Your task to perform on an android device: Show me popular games on the Play Store Image 0: 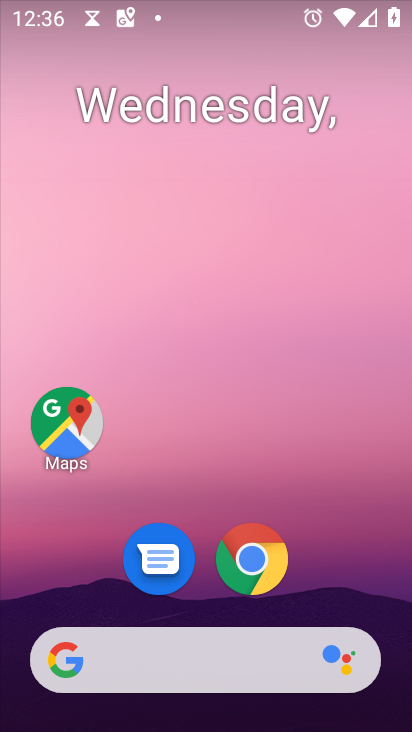
Step 0: drag from (352, 530) to (277, 55)
Your task to perform on an android device: Show me popular games on the Play Store Image 1: 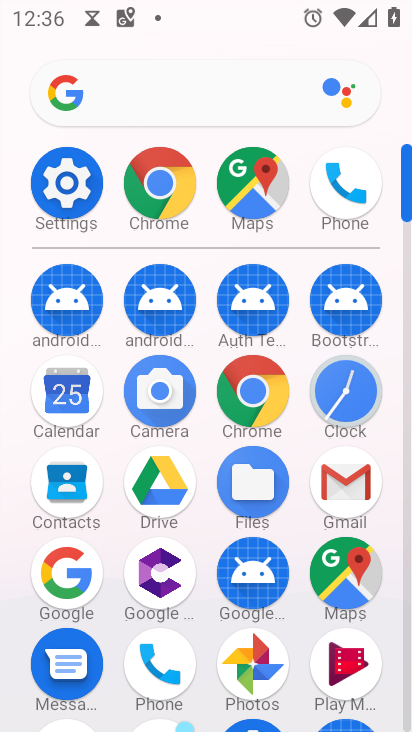
Step 1: drag from (390, 635) to (373, 101)
Your task to perform on an android device: Show me popular games on the Play Store Image 2: 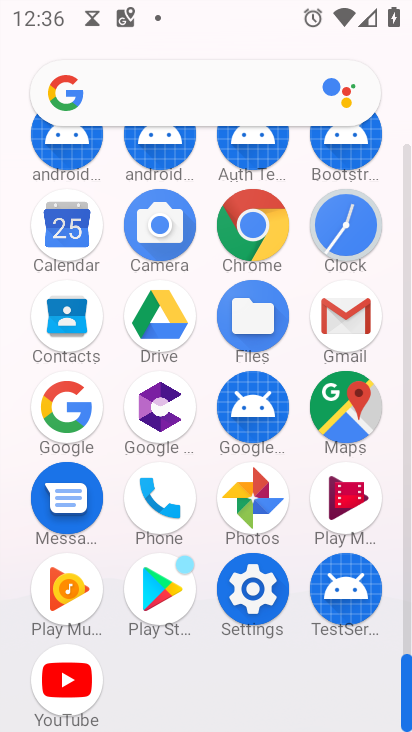
Step 2: click (151, 605)
Your task to perform on an android device: Show me popular games on the Play Store Image 3: 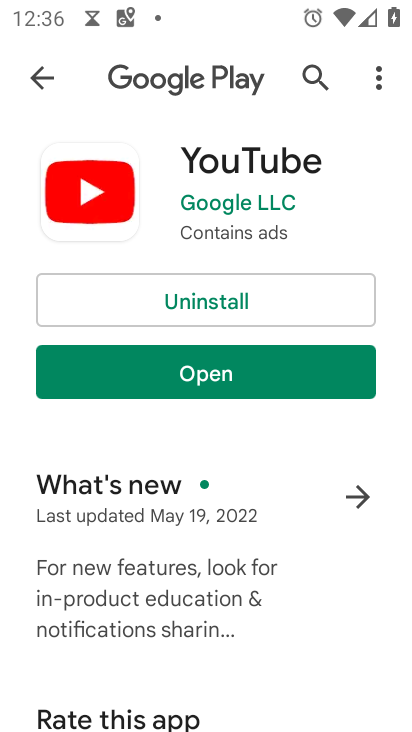
Step 3: click (238, 369)
Your task to perform on an android device: Show me popular games on the Play Store Image 4: 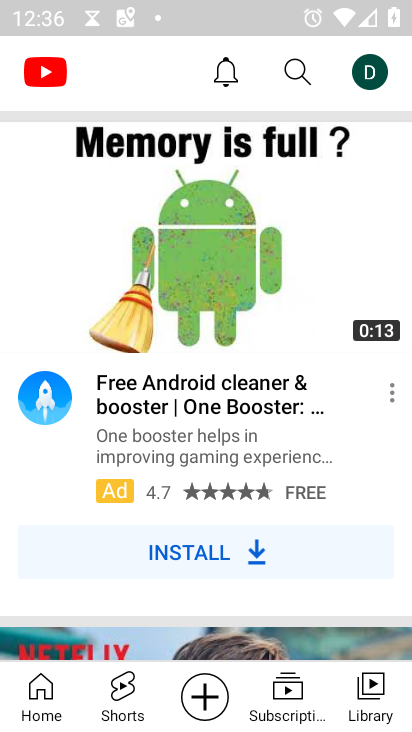
Step 4: click (281, 67)
Your task to perform on an android device: Show me popular games on the Play Store Image 5: 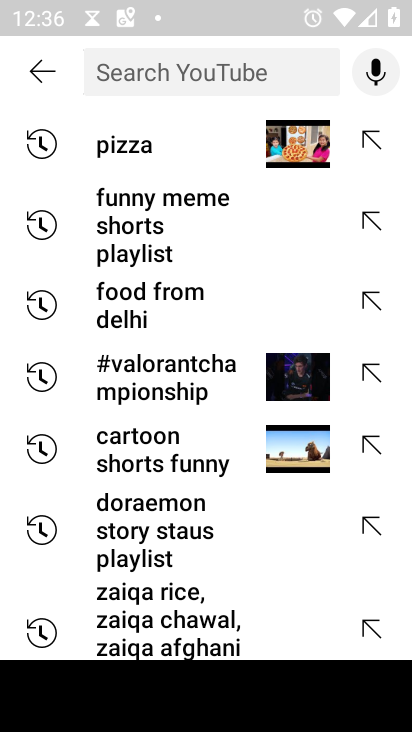
Step 5: type "popular games"
Your task to perform on an android device: Show me popular games on the Play Store Image 6: 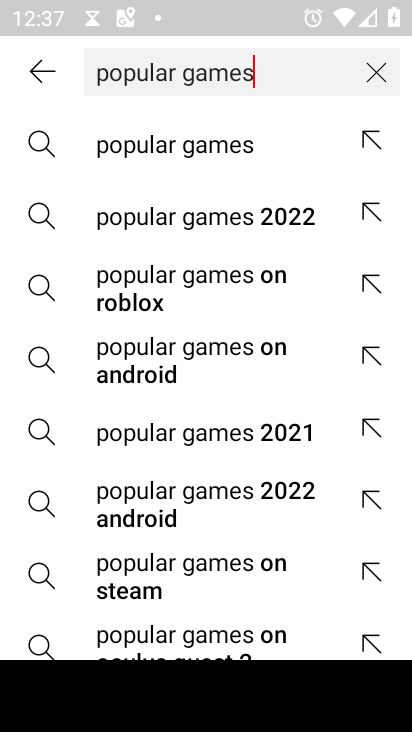
Step 6: click (164, 145)
Your task to perform on an android device: Show me popular games on the Play Store Image 7: 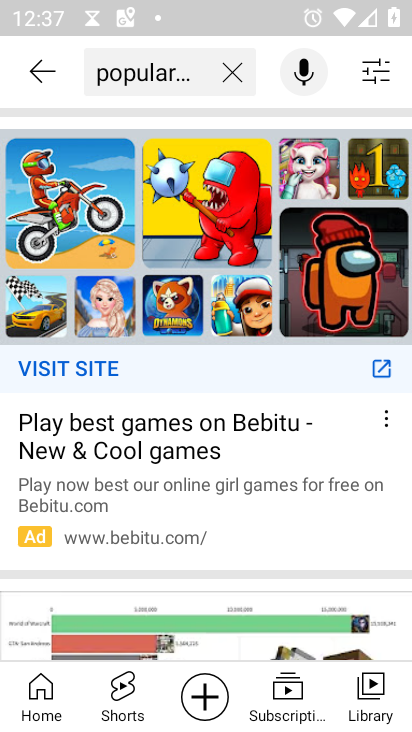
Step 7: task complete